Your task to perform on an android device: toggle airplane mode Image 0: 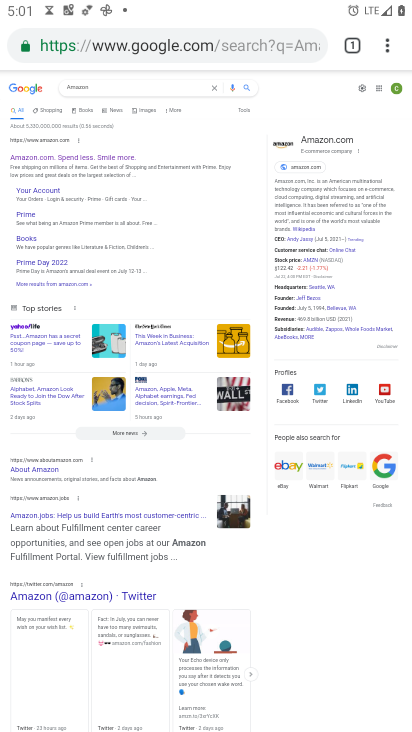
Step 0: press home button
Your task to perform on an android device: toggle airplane mode Image 1: 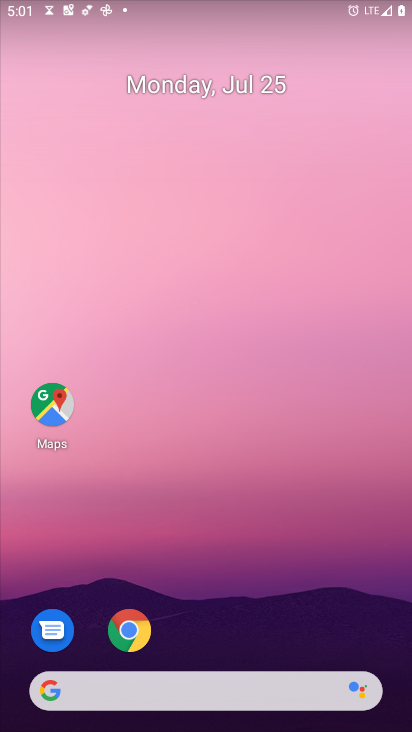
Step 1: drag from (214, 691) to (298, 6)
Your task to perform on an android device: toggle airplane mode Image 2: 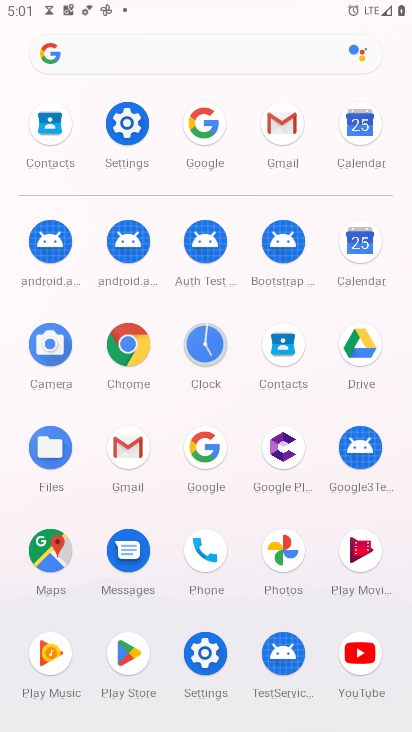
Step 2: click (128, 124)
Your task to perform on an android device: toggle airplane mode Image 3: 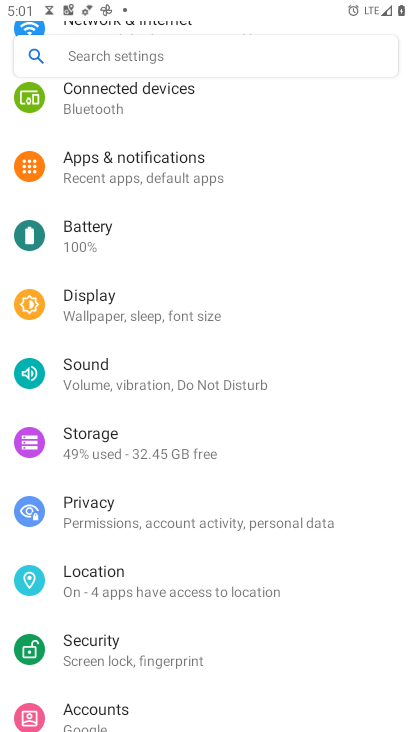
Step 3: drag from (128, 124) to (125, 532)
Your task to perform on an android device: toggle airplane mode Image 4: 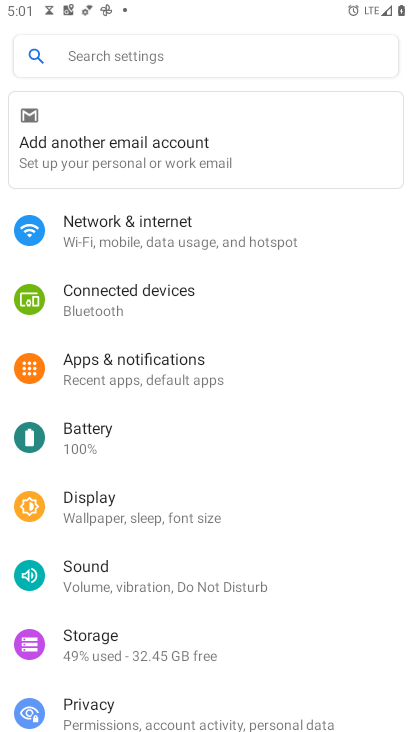
Step 4: click (155, 243)
Your task to perform on an android device: toggle airplane mode Image 5: 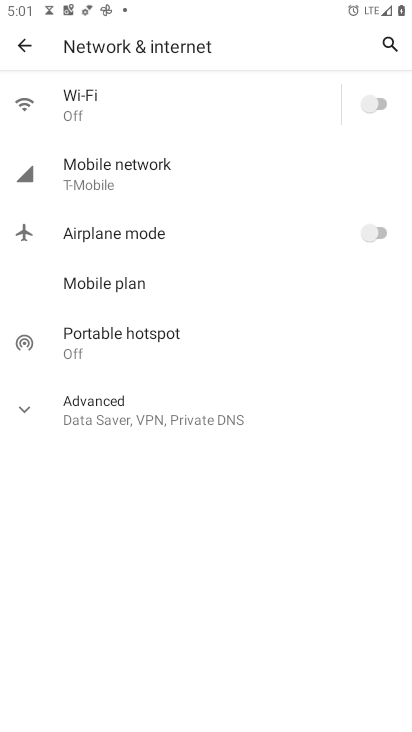
Step 5: click (372, 230)
Your task to perform on an android device: toggle airplane mode Image 6: 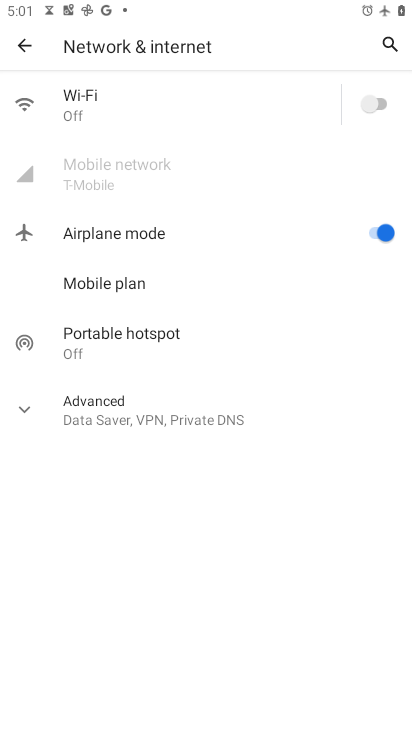
Step 6: task complete